Your task to perform on an android device: Open Wikipedia Image 0: 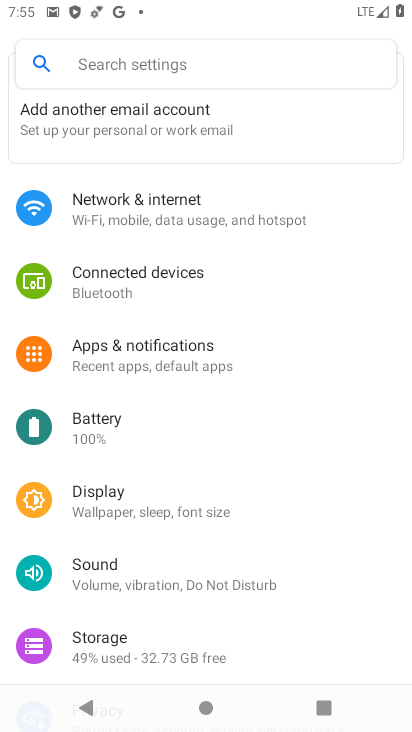
Step 0: press home button
Your task to perform on an android device: Open Wikipedia Image 1: 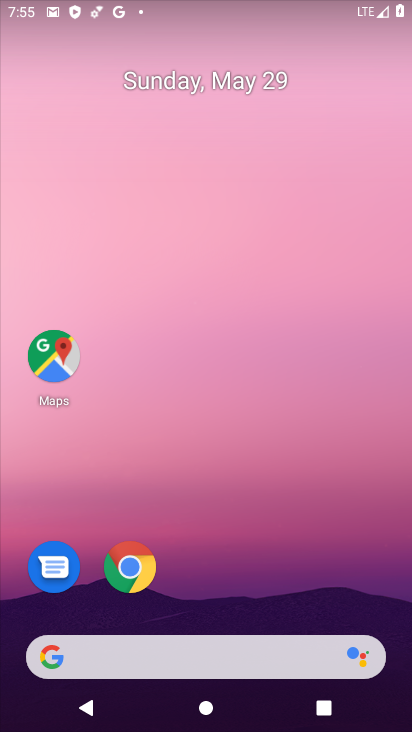
Step 1: click (131, 562)
Your task to perform on an android device: Open Wikipedia Image 2: 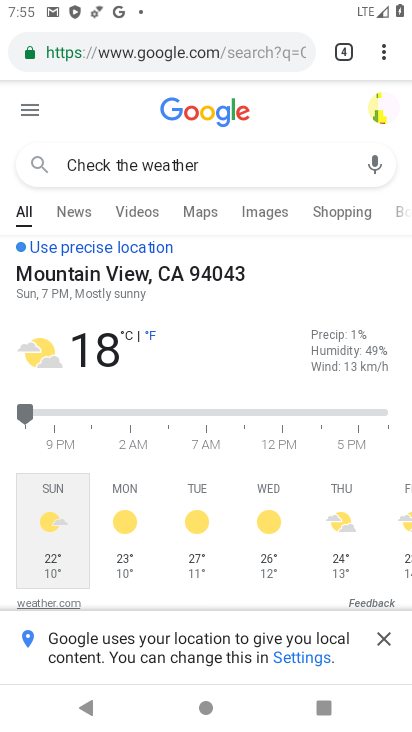
Step 2: click (383, 47)
Your task to perform on an android device: Open Wikipedia Image 3: 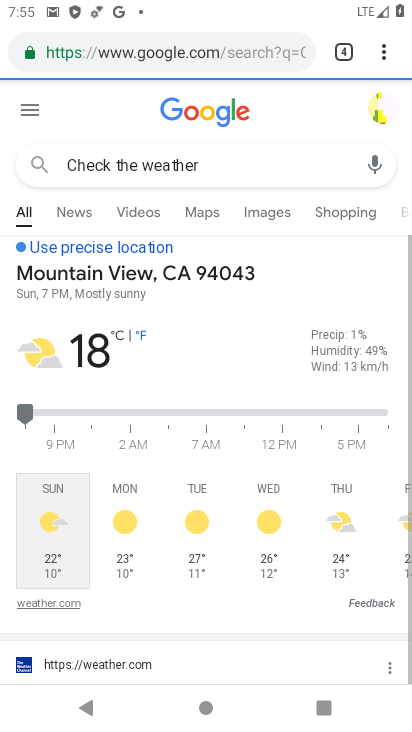
Step 3: click (384, 47)
Your task to perform on an android device: Open Wikipedia Image 4: 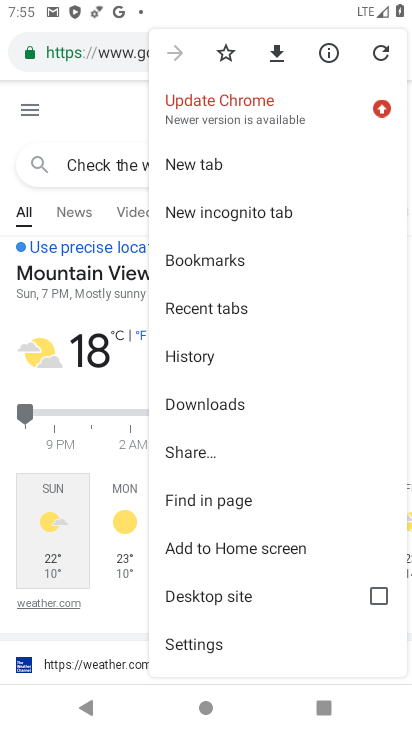
Step 4: click (219, 169)
Your task to perform on an android device: Open Wikipedia Image 5: 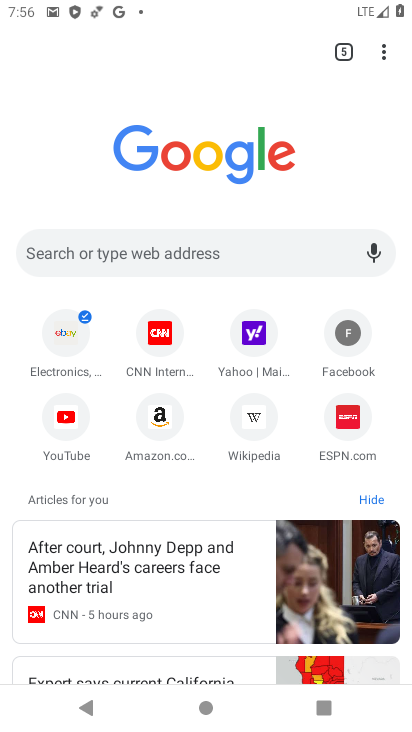
Step 5: click (248, 410)
Your task to perform on an android device: Open Wikipedia Image 6: 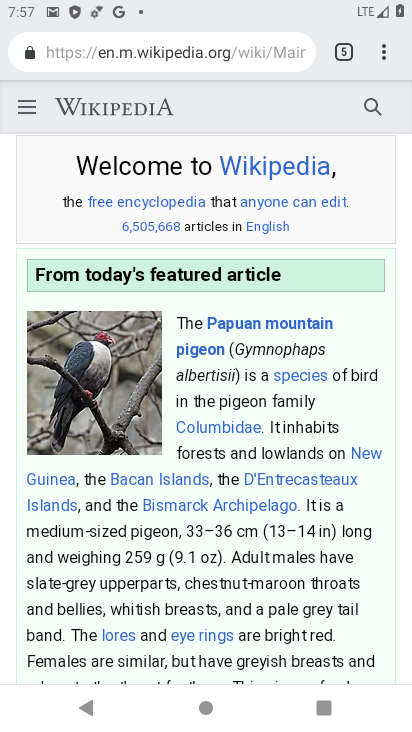
Step 6: task complete